Your task to perform on an android device: check google app version Image 0: 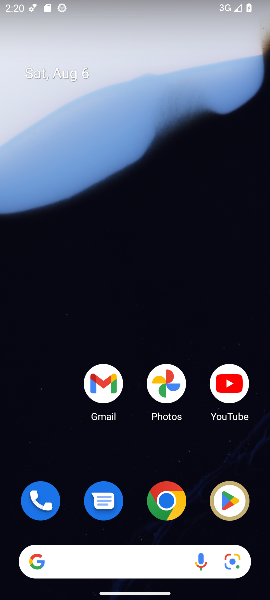
Step 0: press home button
Your task to perform on an android device: check google app version Image 1: 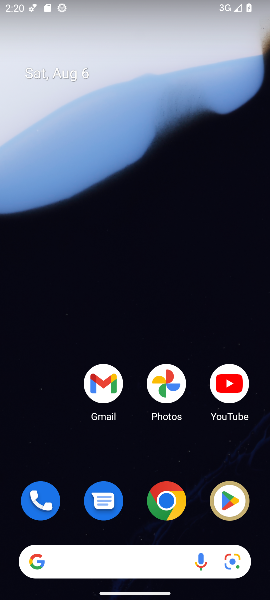
Step 1: drag from (199, 508) to (157, 114)
Your task to perform on an android device: check google app version Image 2: 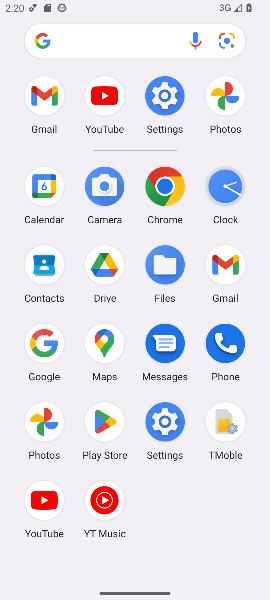
Step 2: click (43, 348)
Your task to perform on an android device: check google app version Image 3: 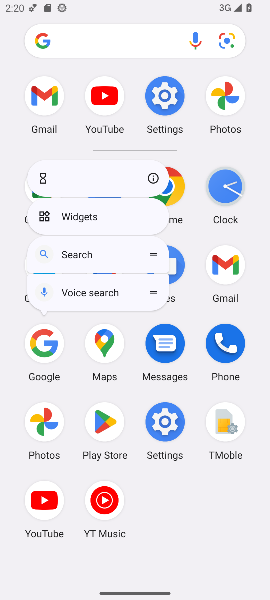
Step 3: click (154, 173)
Your task to perform on an android device: check google app version Image 4: 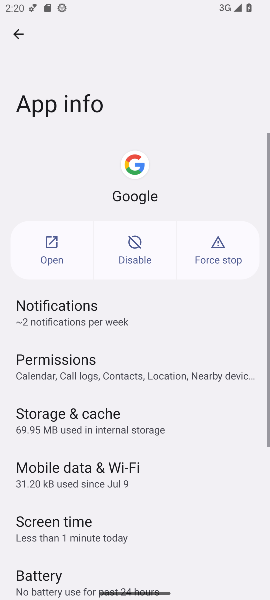
Step 4: task complete